Your task to perform on an android device: Open network settings Image 0: 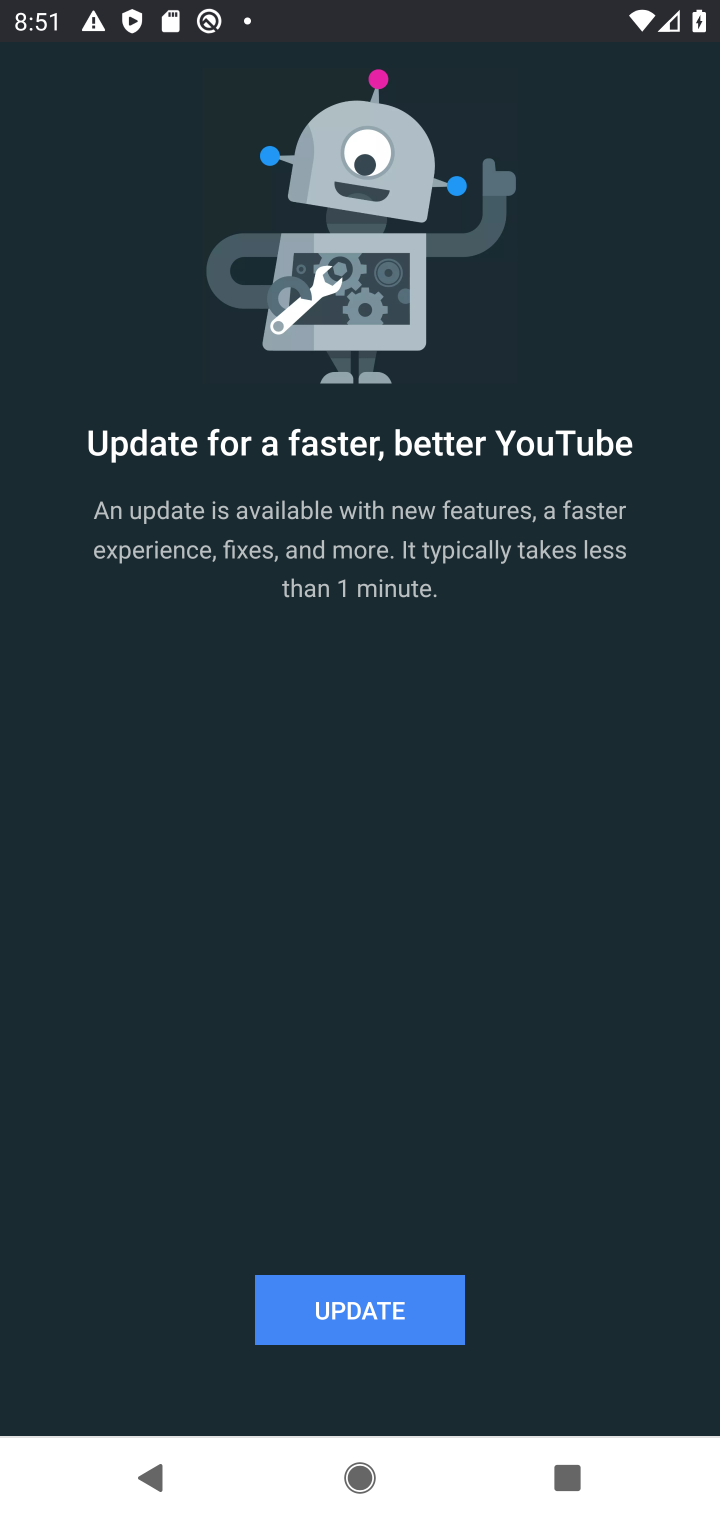
Step 0: press home button
Your task to perform on an android device: Open network settings Image 1: 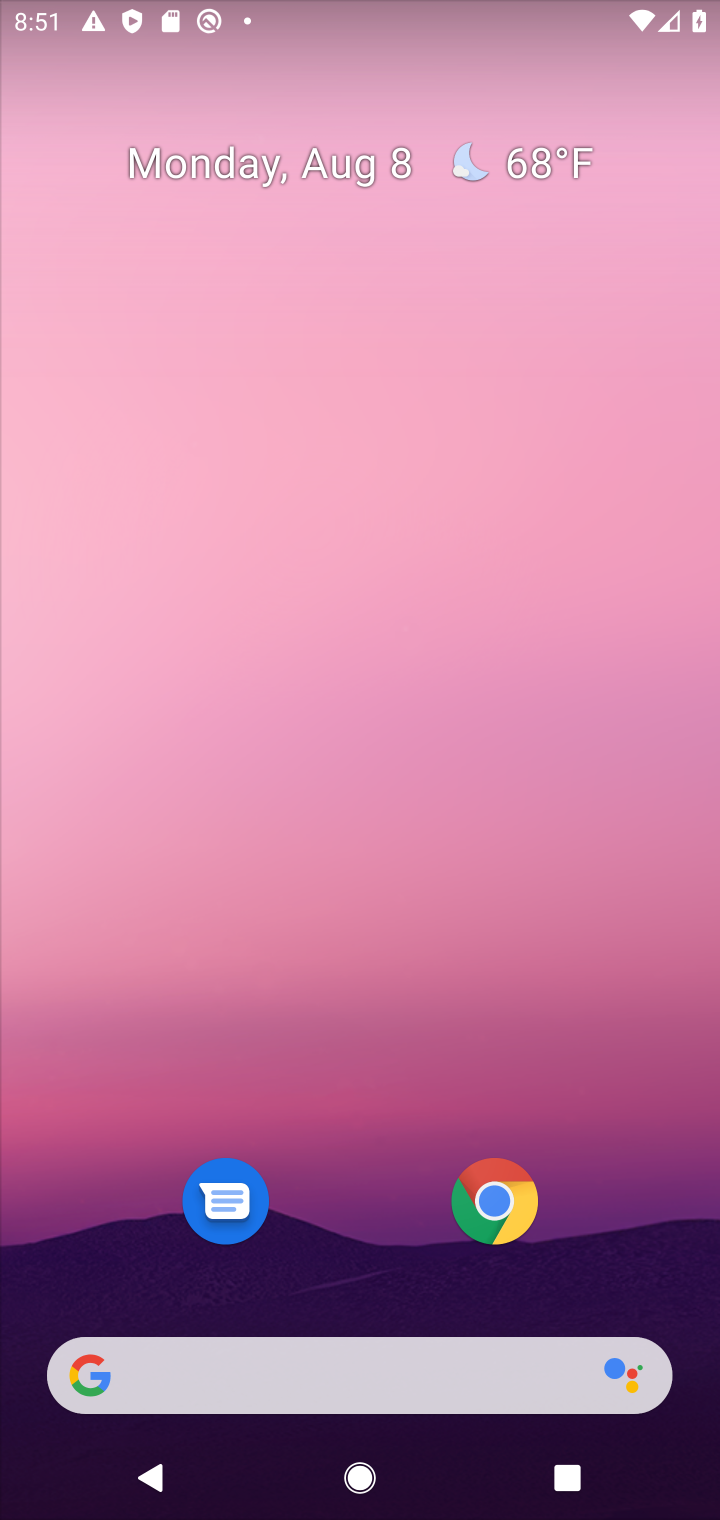
Step 1: drag from (352, 1273) to (433, 289)
Your task to perform on an android device: Open network settings Image 2: 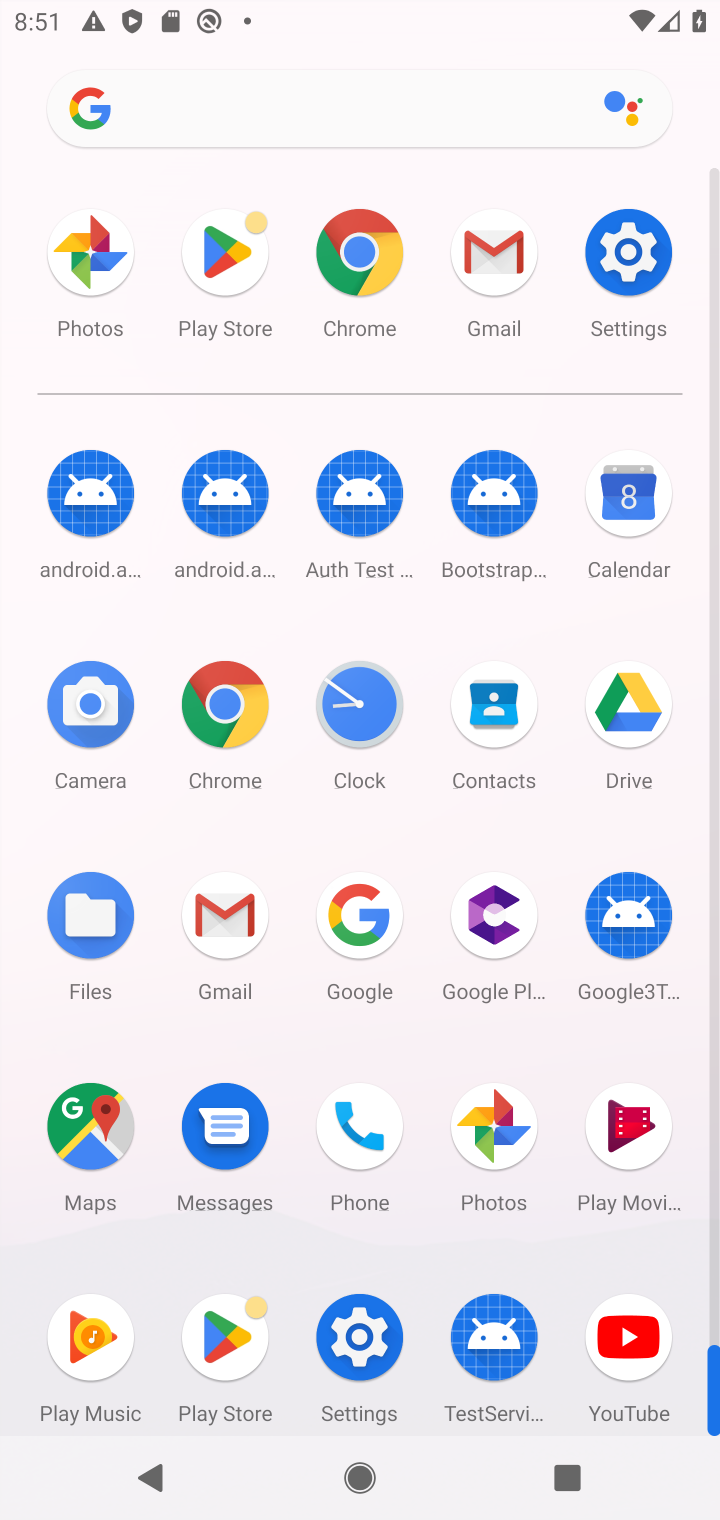
Step 2: click (643, 264)
Your task to perform on an android device: Open network settings Image 3: 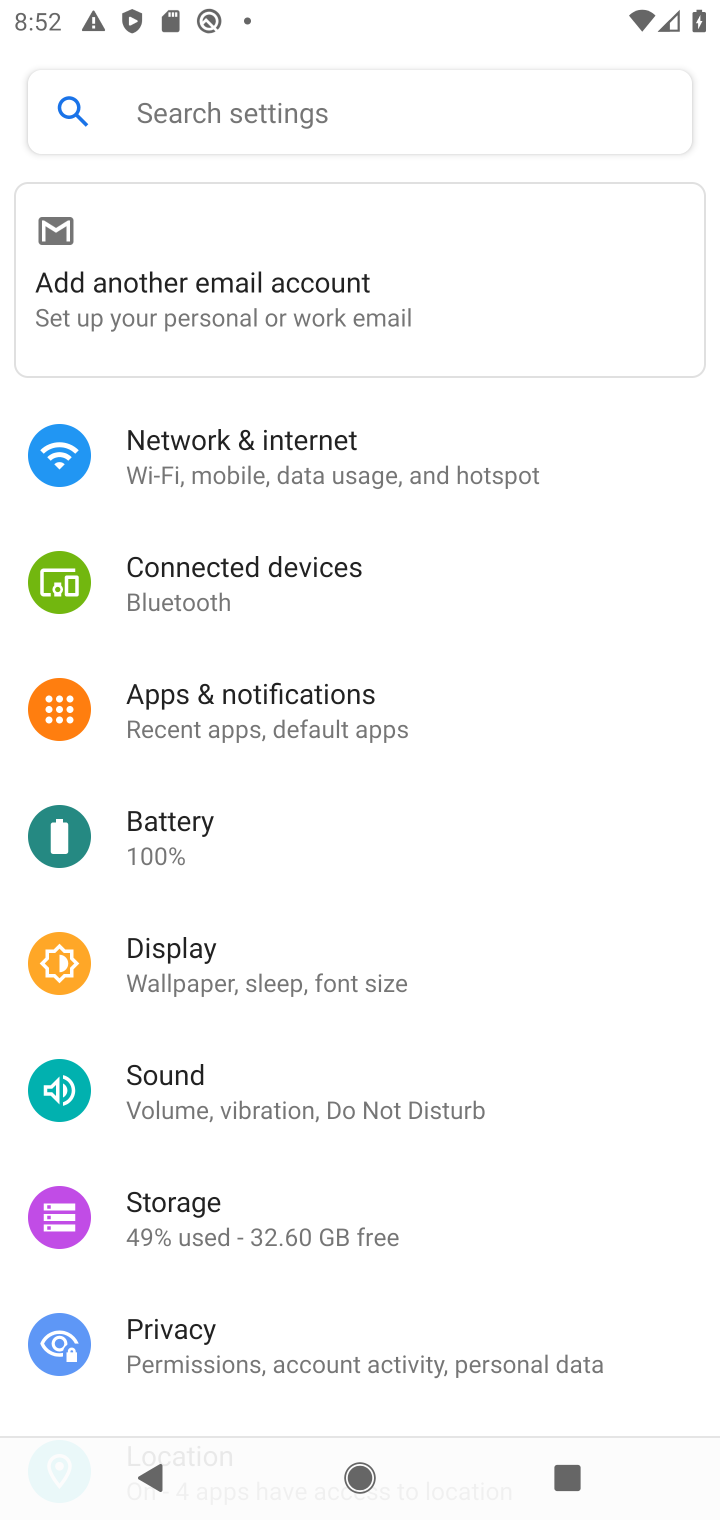
Step 3: drag from (602, 836) to (634, 578)
Your task to perform on an android device: Open network settings Image 4: 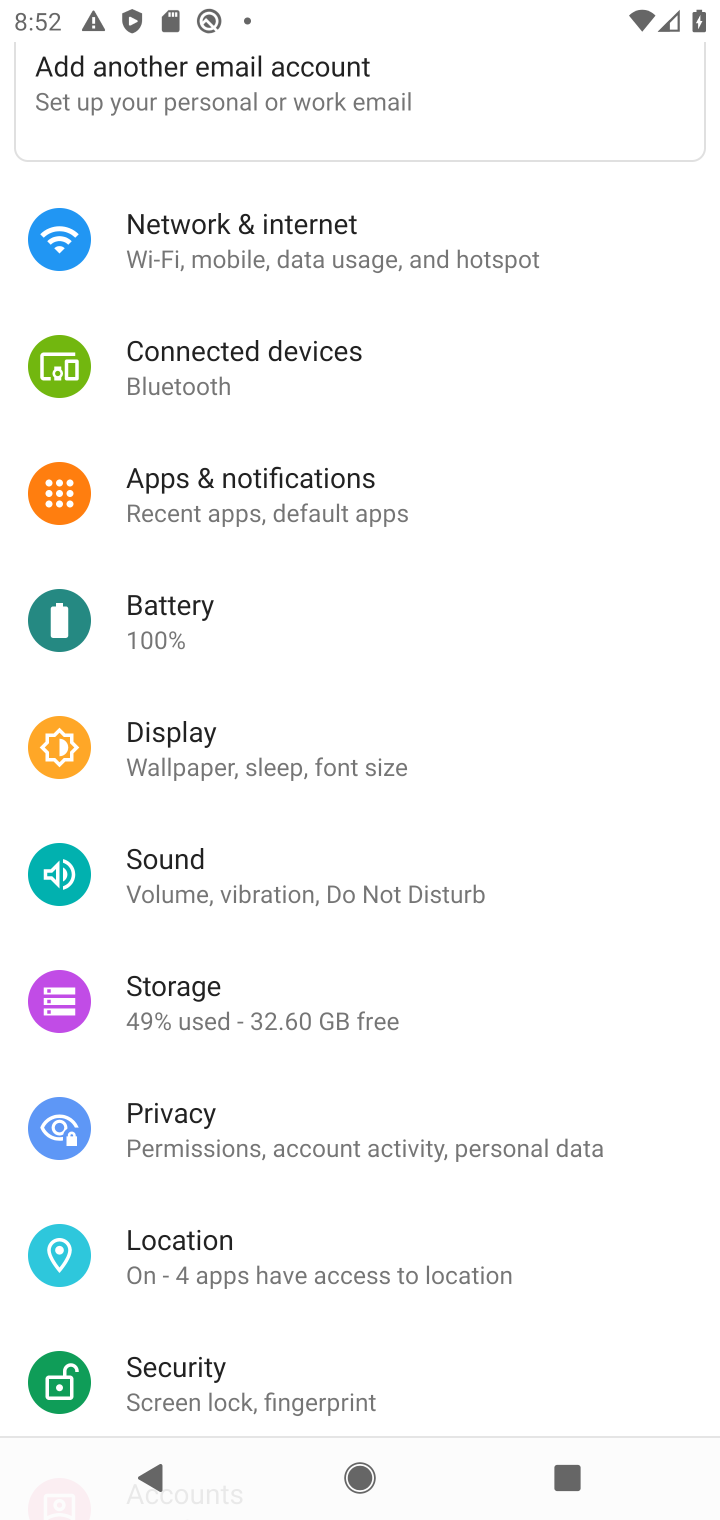
Step 4: drag from (592, 975) to (605, 742)
Your task to perform on an android device: Open network settings Image 5: 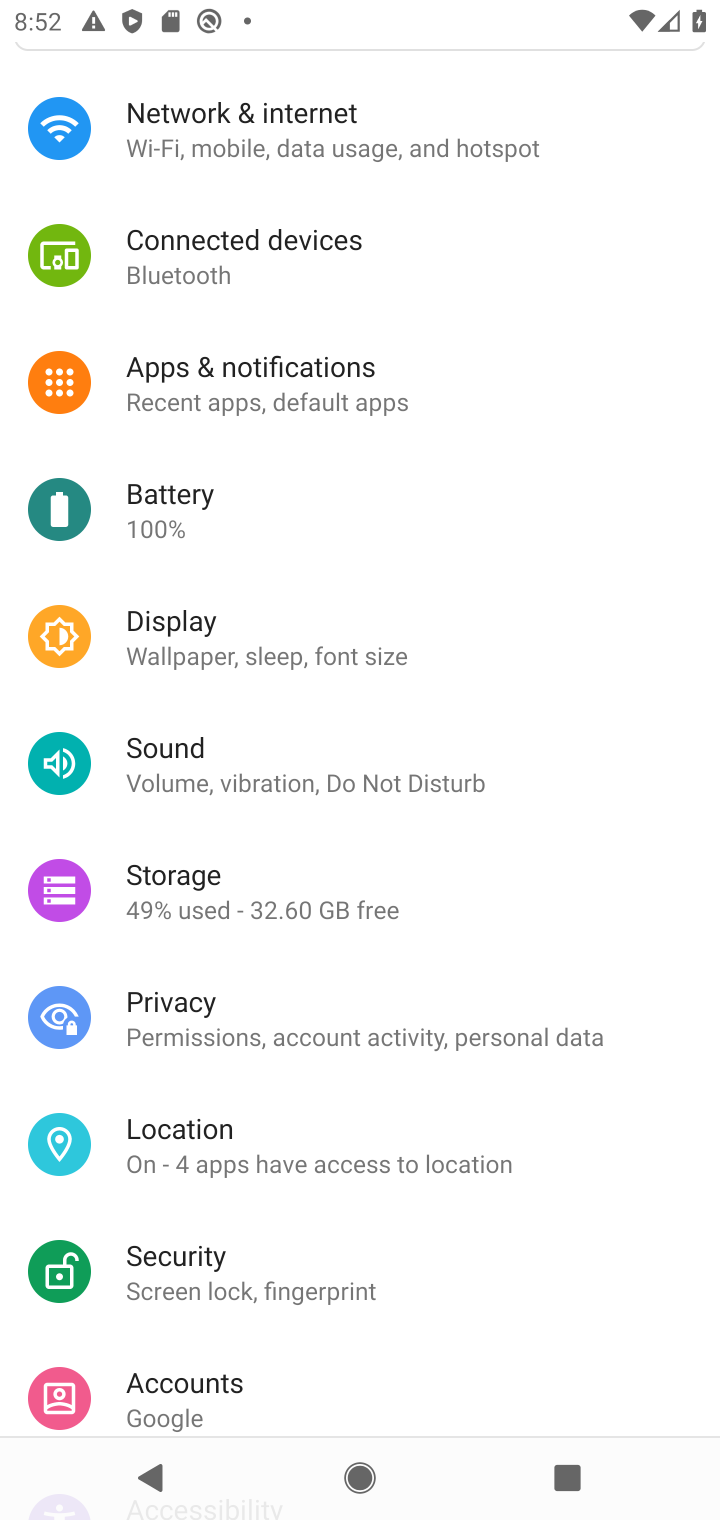
Step 5: drag from (634, 1145) to (622, 809)
Your task to perform on an android device: Open network settings Image 6: 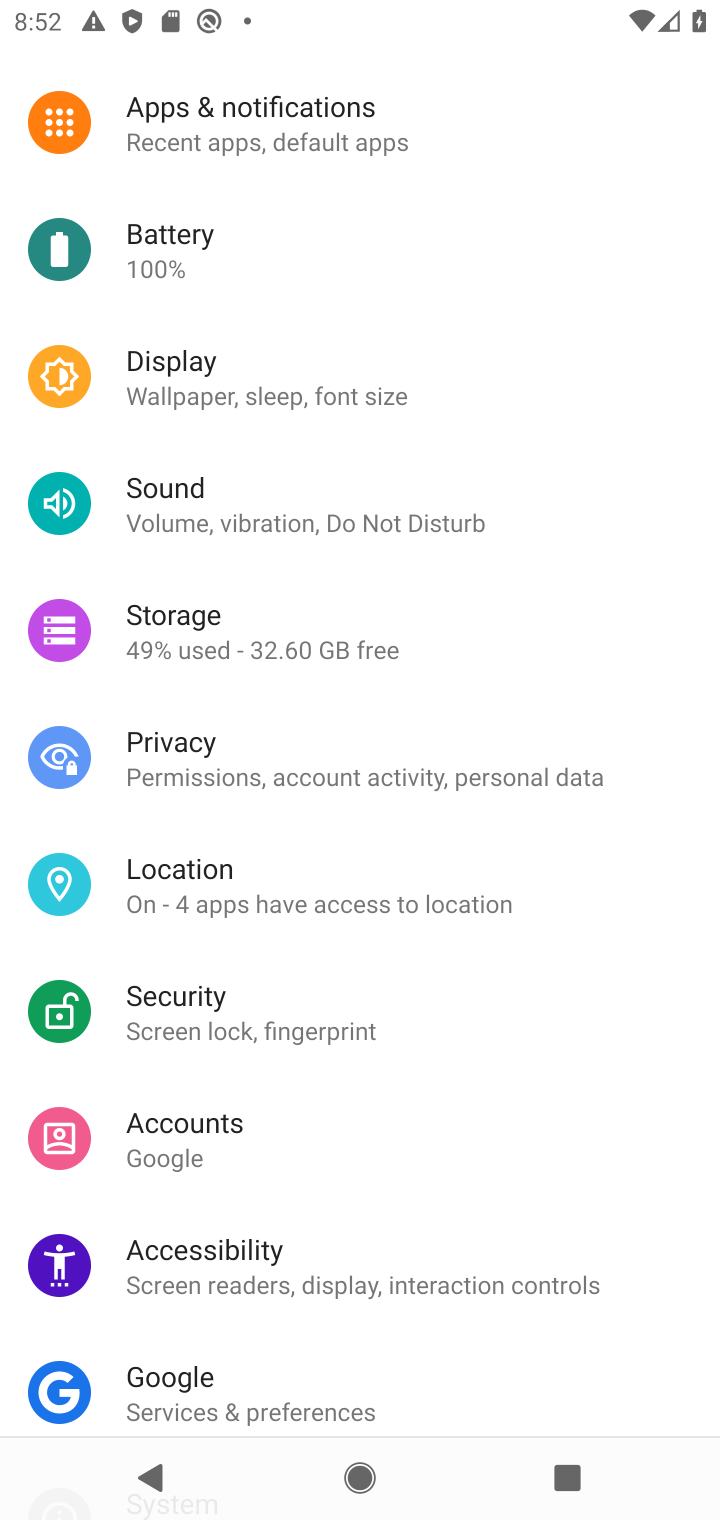
Step 6: drag from (600, 1158) to (598, 829)
Your task to perform on an android device: Open network settings Image 7: 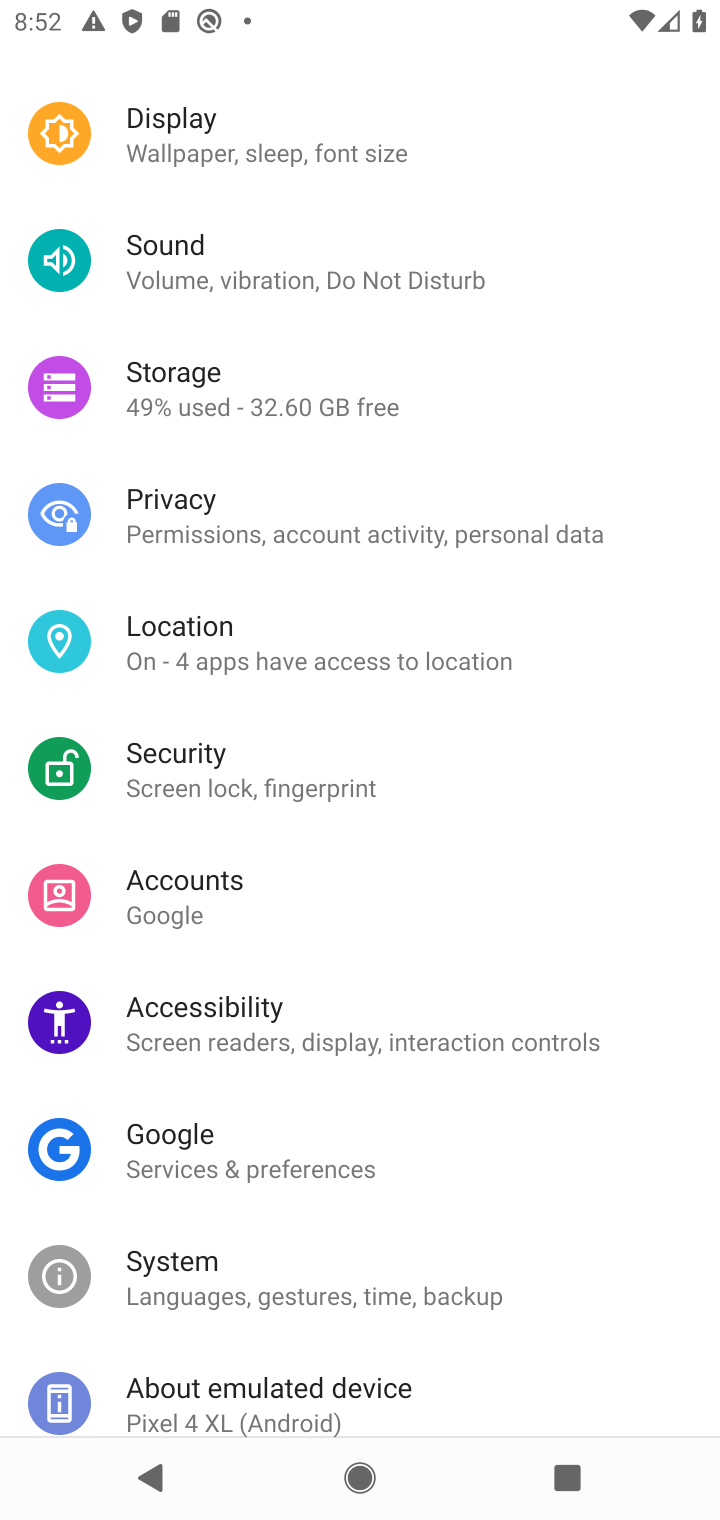
Step 7: drag from (655, 527) to (657, 824)
Your task to perform on an android device: Open network settings Image 8: 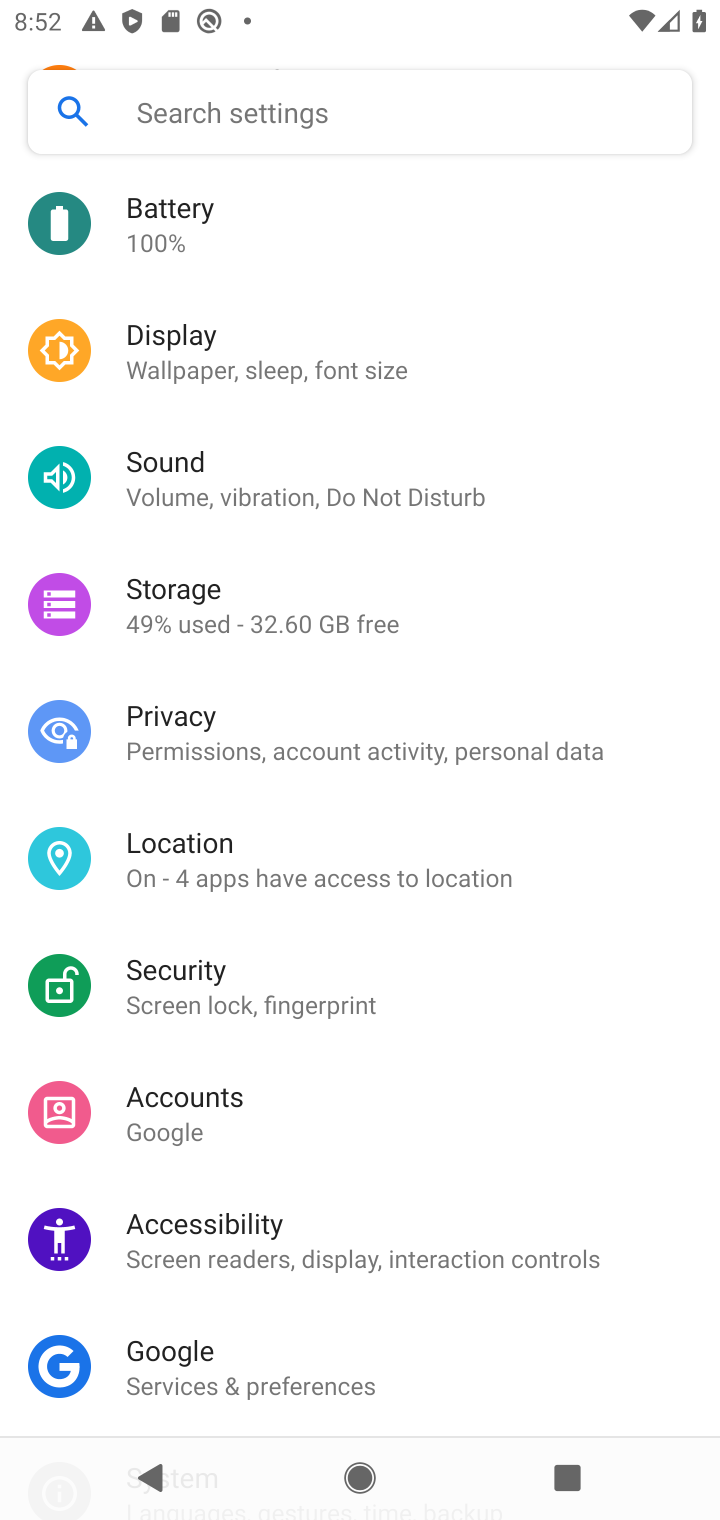
Step 8: drag from (649, 373) to (618, 674)
Your task to perform on an android device: Open network settings Image 9: 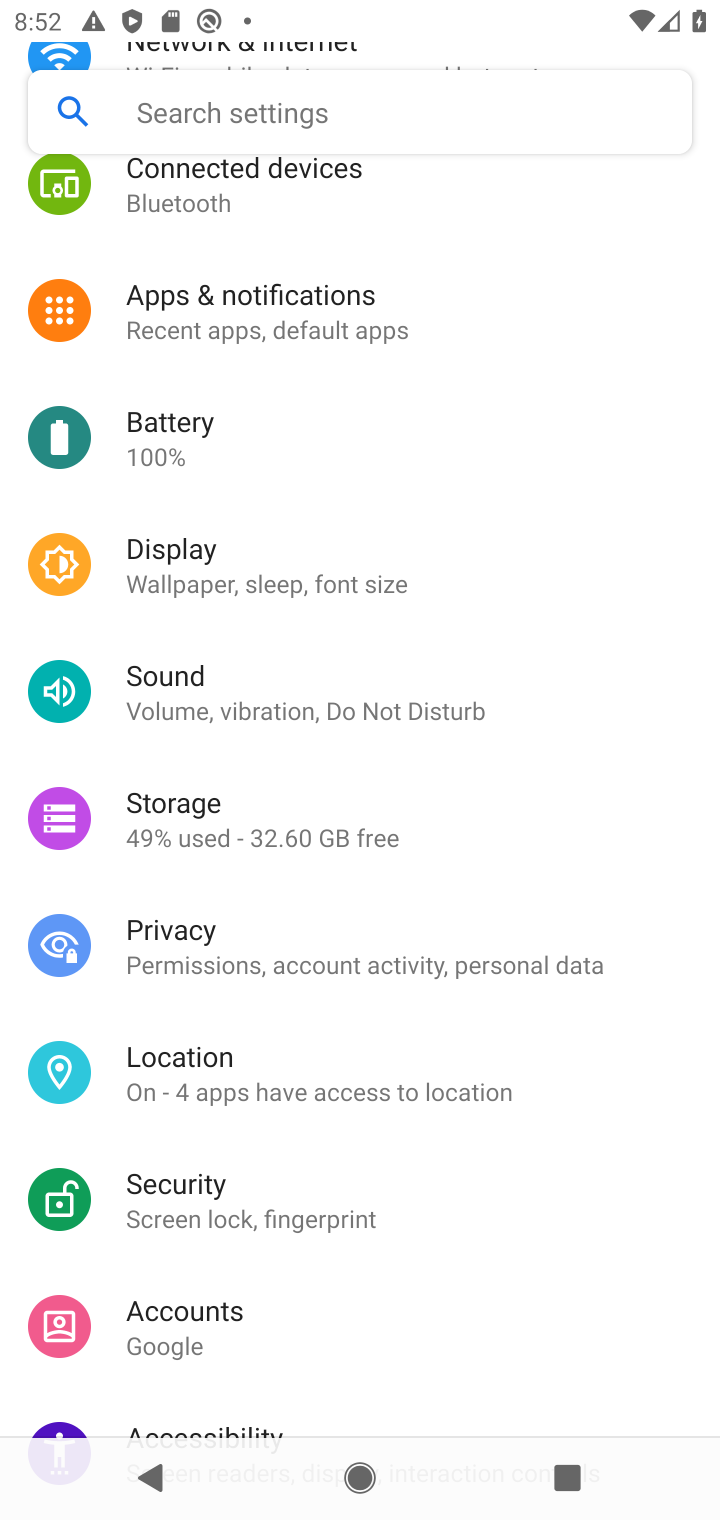
Step 9: drag from (633, 339) to (627, 668)
Your task to perform on an android device: Open network settings Image 10: 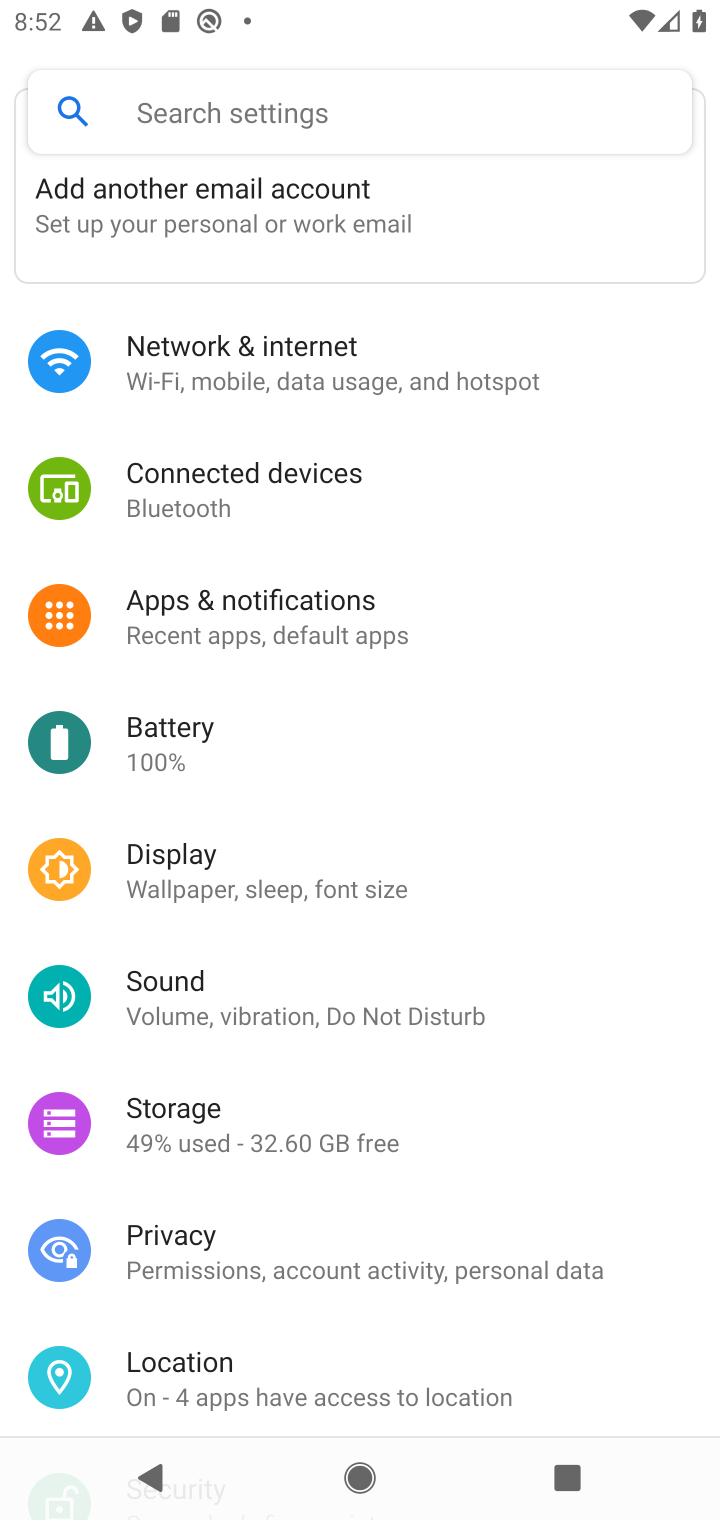
Step 10: drag from (592, 321) to (588, 673)
Your task to perform on an android device: Open network settings Image 11: 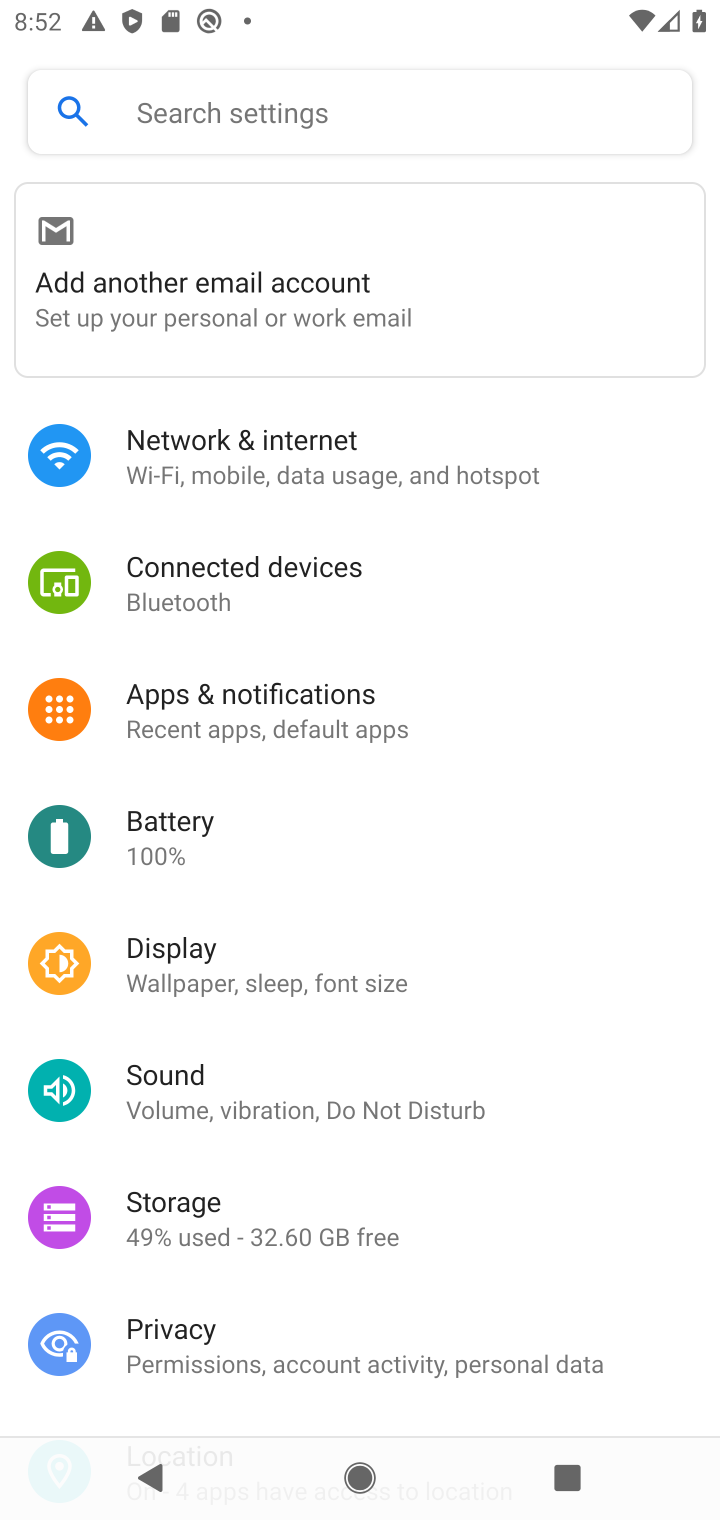
Step 11: click (485, 447)
Your task to perform on an android device: Open network settings Image 12: 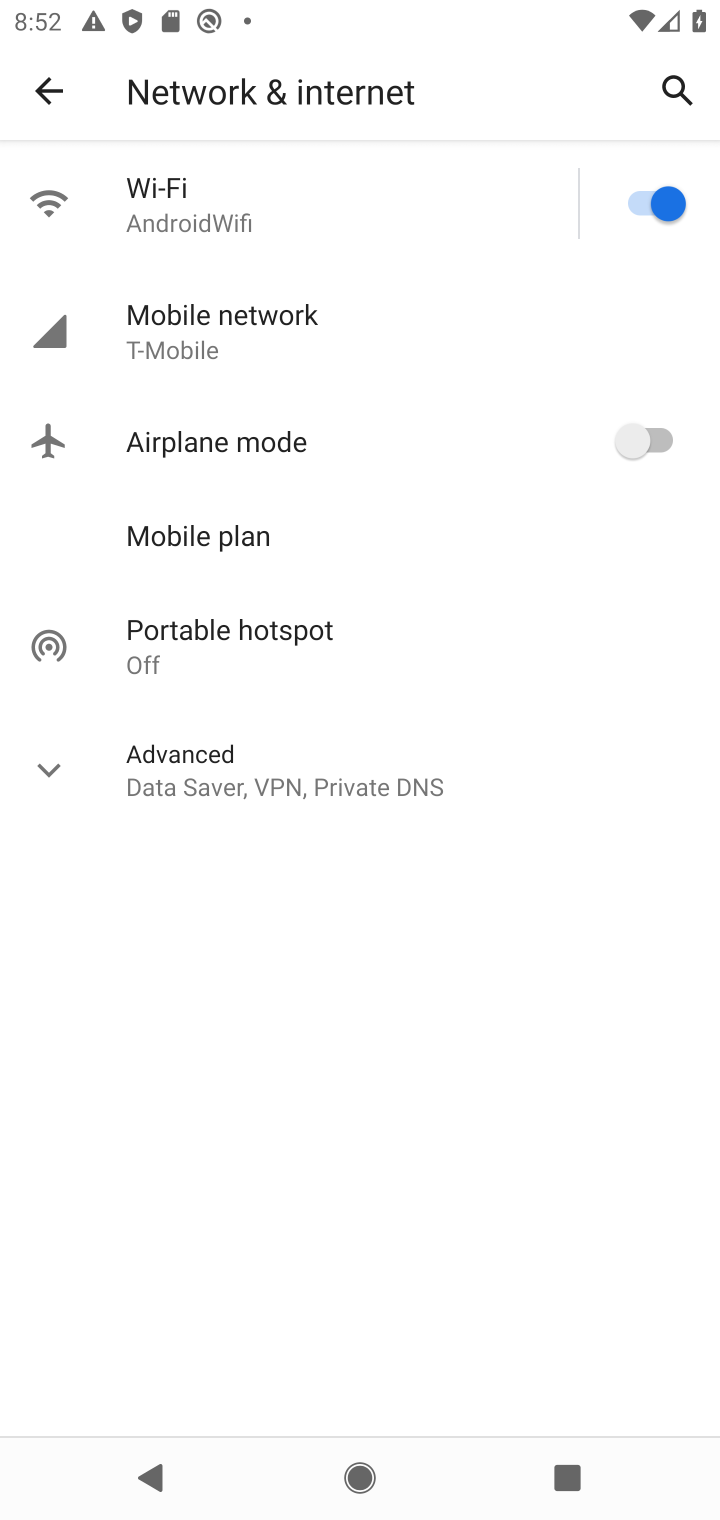
Step 12: task complete